Your task to perform on an android device: What's the weather going to be this weekend? Image 0: 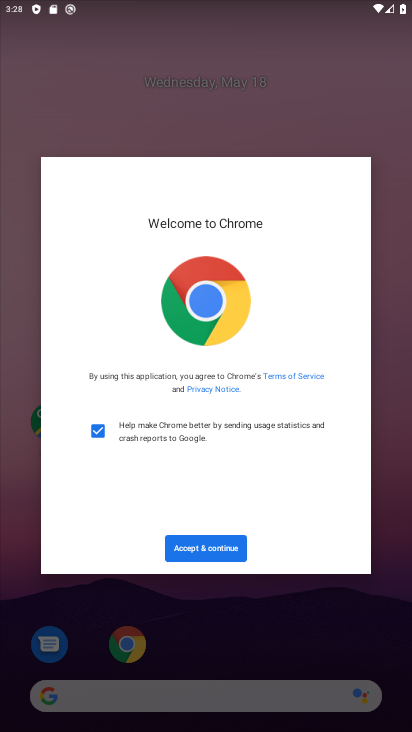
Step 0: click (192, 548)
Your task to perform on an android device: What's the weather going to be this weekend? Image 1: 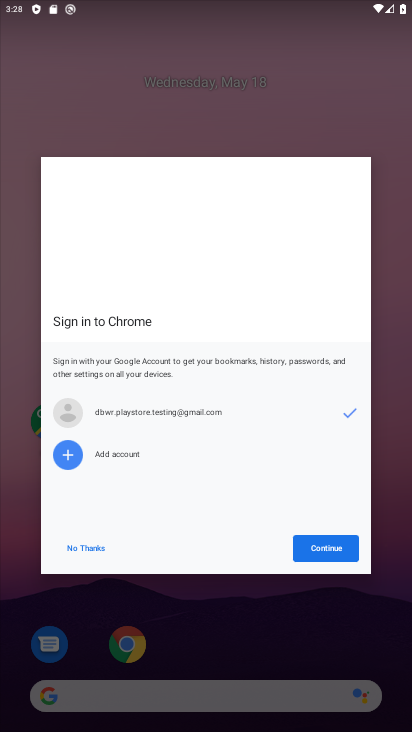
Step 1: press home button
Your task to perform on an android device: What's the weather going to be this weekend? Image 2: 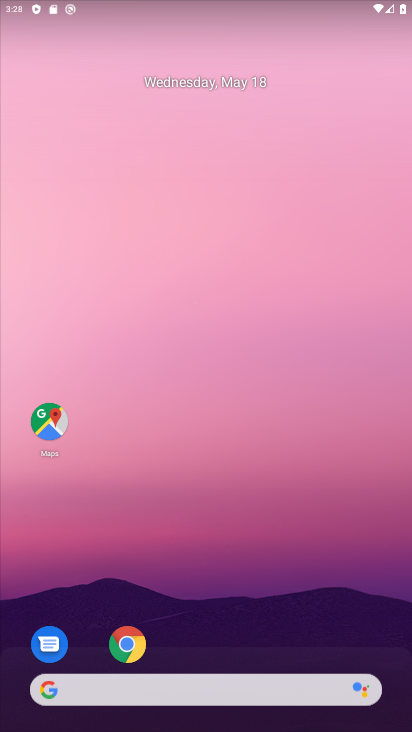
Step 2: drag from (10, 284) to (392, 209)
Your task to perform on an android device: What's the weather going to be this weekend? Image 3: 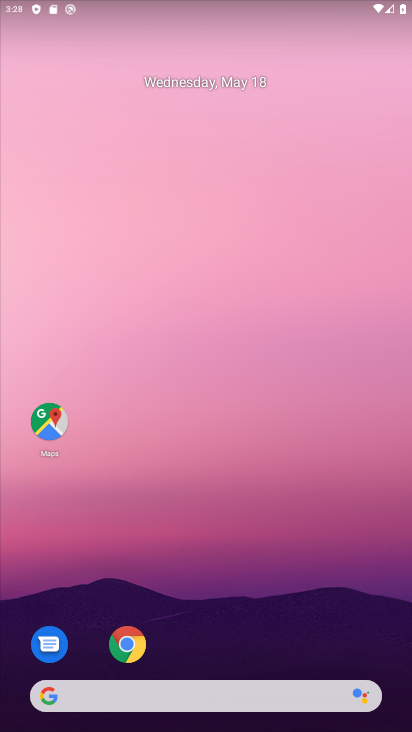
Step 3: drag from (184, 205) to (402, 216)
Your task to perform on an android device: What's the weather going to be this weekend? Image 4: 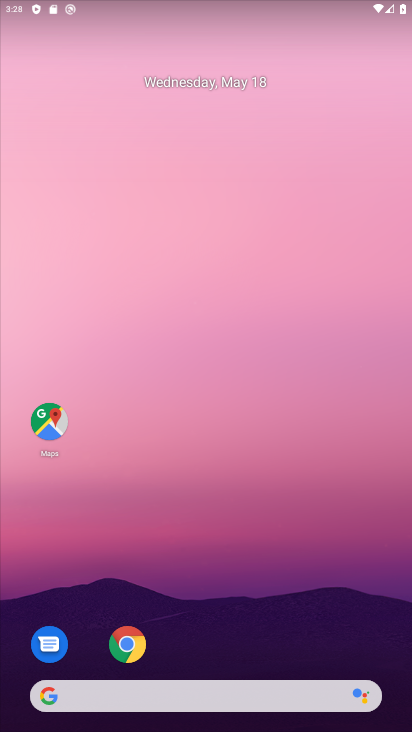
Step 4: drag from (182, 675) to (335, 42)
Your task to perform on an android device: What's the weather going to be this weekend? Image 5: 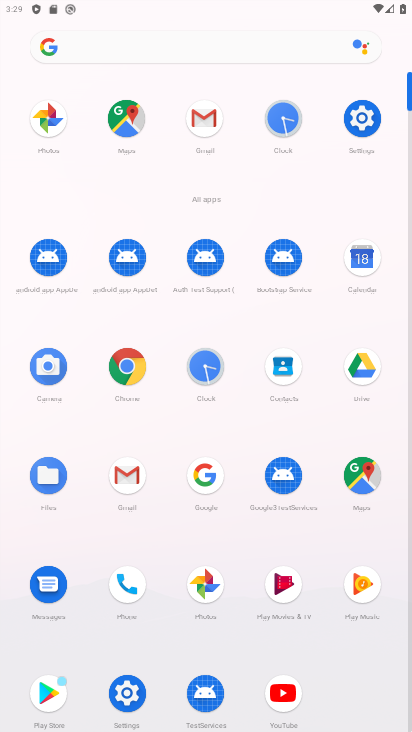
Step 5: click (169, 695)
Your task to perform on an android device: What's the weather going to be this weekend? Image 6: 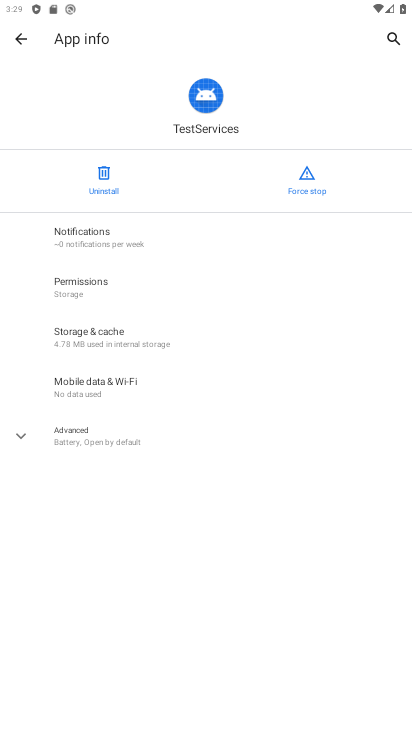
Step 6: press back button
Your task to perform on an android device: What's the weather going to be this weekend? Image 7: 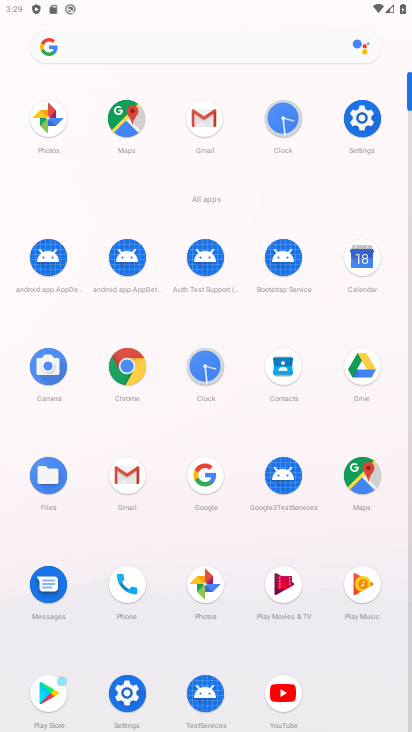
Step 7: click (213, 468)
Your task to perform on an android device: What's the weather going to be this weekend? Image 8: 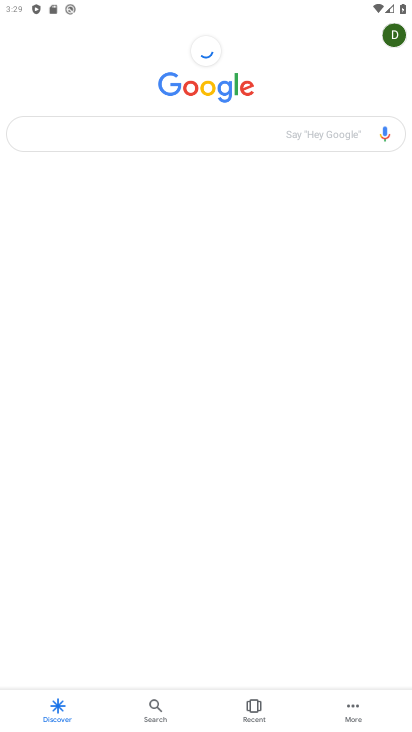
Step 8: click (185, 140)
Your task to perform on an android device: What's the weather going to be this weekend? Image 9: 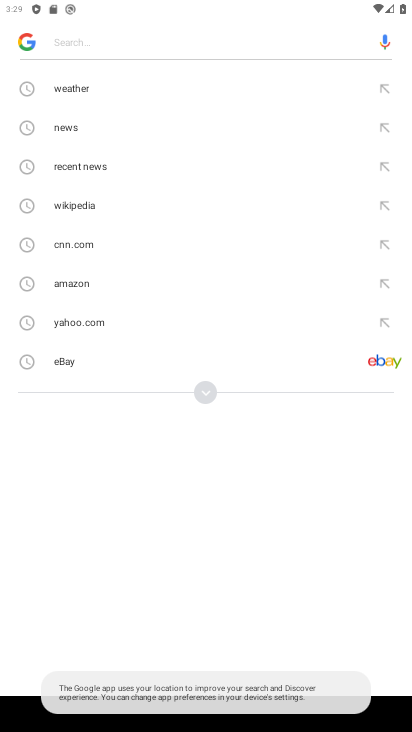
Step 9: click (123, 93)
Your task to perform on an android device: What's the weather going to be this weekend? Image 10: 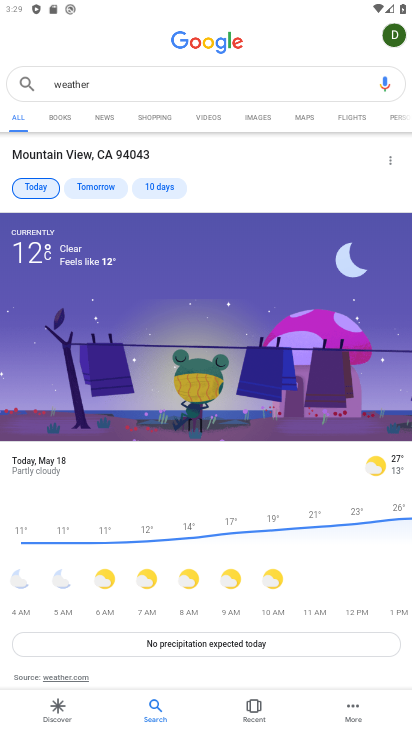
Step 10: drag from (198, 527) to (331, 168)
Your task to perform on an android device: What's the weather going to be this weekend? Image 11: 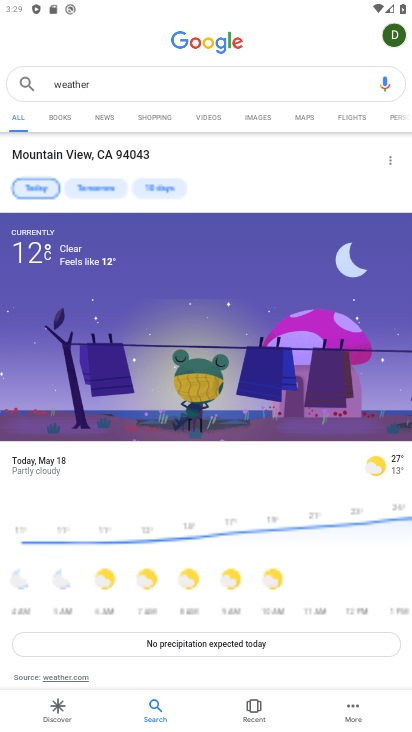
Step 11: drag from (176, 578) to (337, 92)
Your task to perform on an android device: What's the weather going to be this weekend? Image 12: 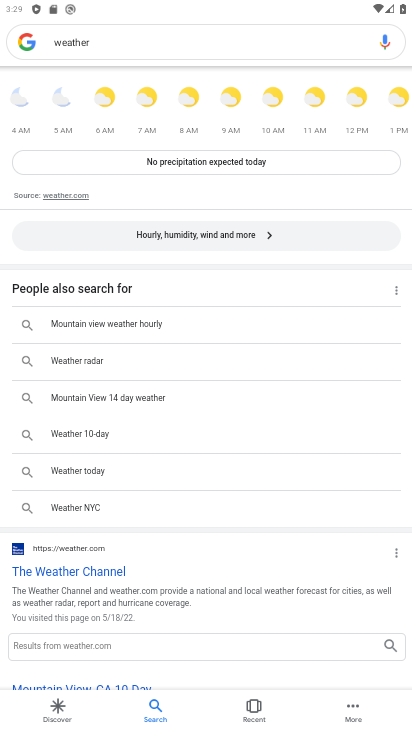
Step 12: drag from (197, 670) to (260, 360)
Your task to perform on an android device: What's the weather going to be this weekend? Image 13: 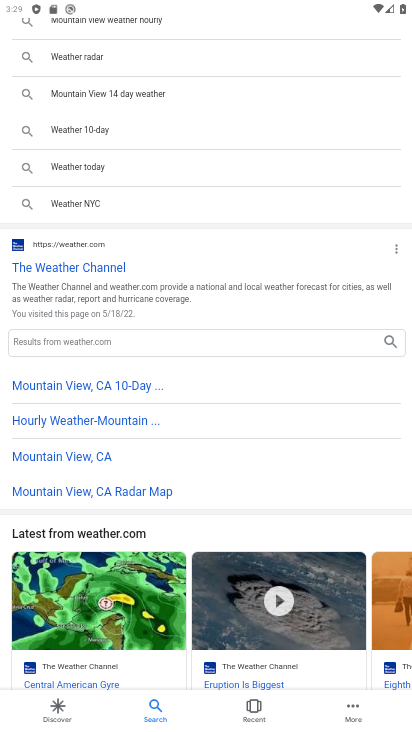
Step 13: click (99, 266)
Your task to perform on an android device: What's the weather going to be this weekend? Image 14: 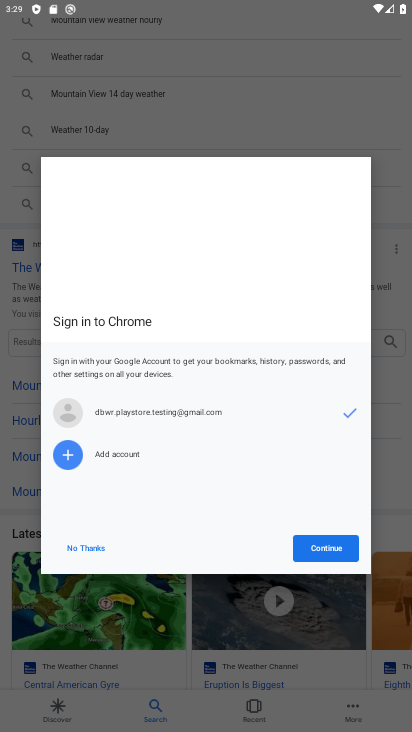
Step 14: click (326, 559)
Your task to perform on an android device: What's the weather going to be this weekend? Image 15: 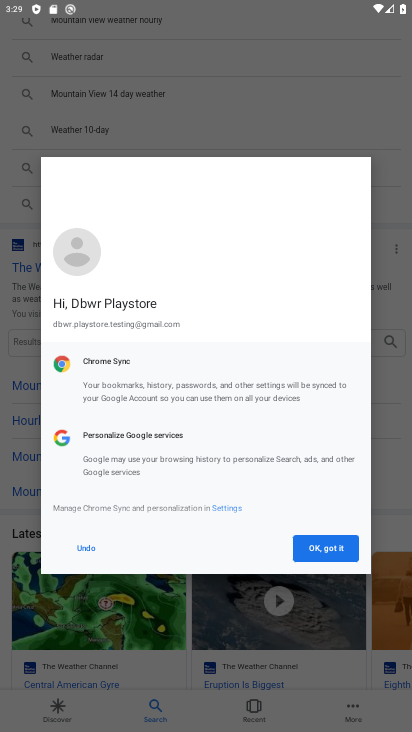
Step 15: click (326, 559)
Your task to perform on an android device: What's the weather going to be this weekend? Image 16: 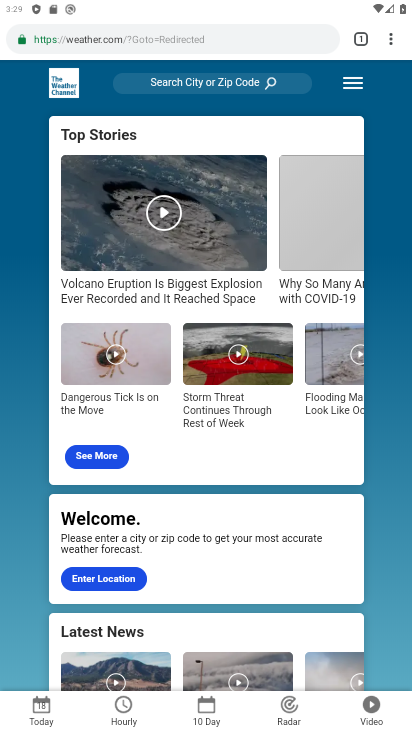
Step 16: click (211, 719)
Your task to perform on an android device: What's the weather going to be this weekend? Image 17: 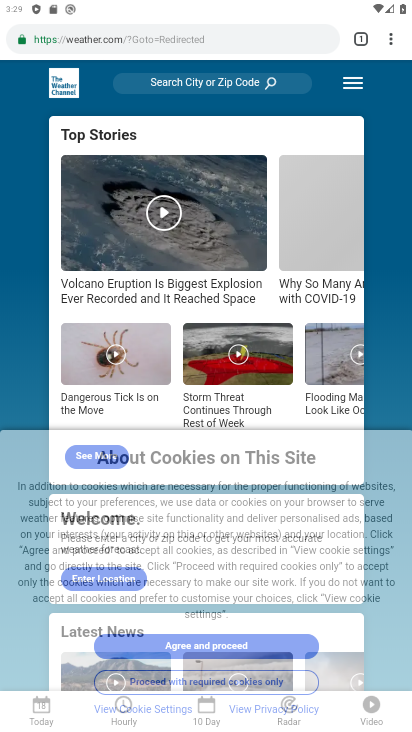
Step 17: click (211, 717)
Your task to perform on an android device: What's the weather going to be this weekend? Image 18: 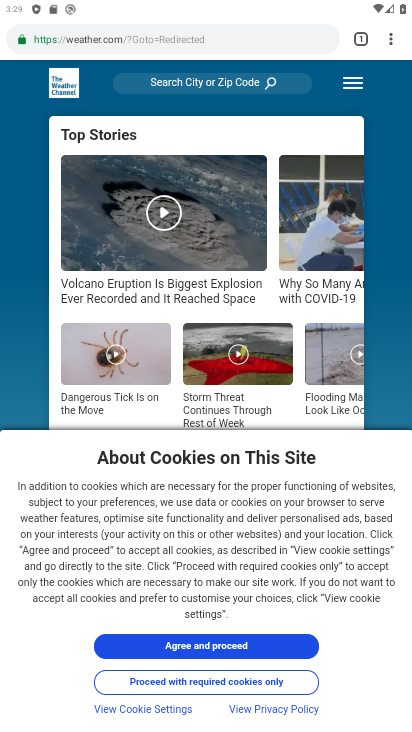
Step 18: click (222, 647)
Your task to perform on an android device: What's the weather going to be this weekend? Image 19: 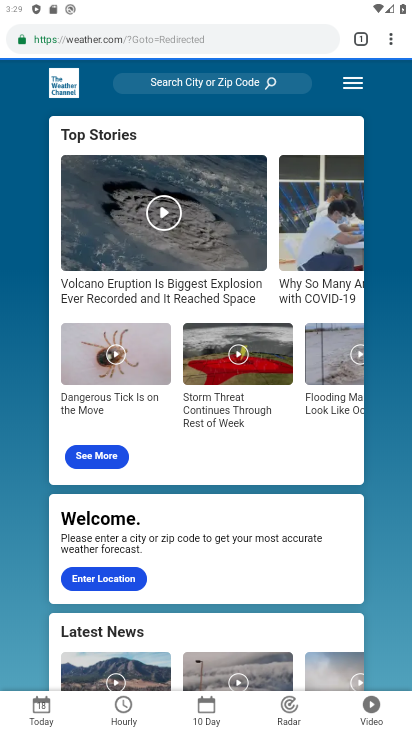
Step 19: click (197, 705)
Your task to perform on an android device: What's the weather going to be this weekend? Image 20: 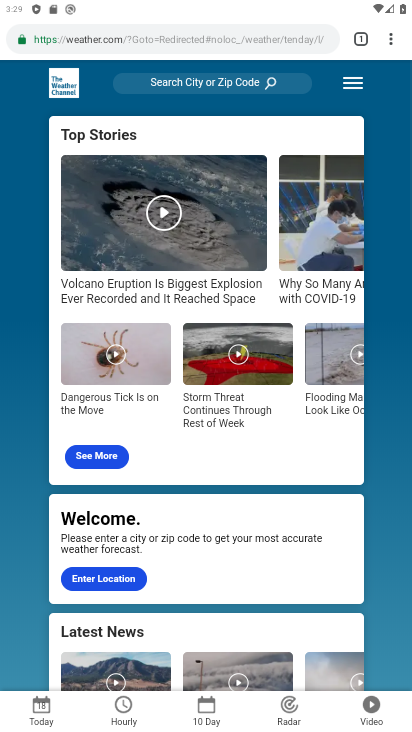
Step 20: click (211, 715)
Your task to perform on an android device: What's the weather going to be this weekend? Image 21: 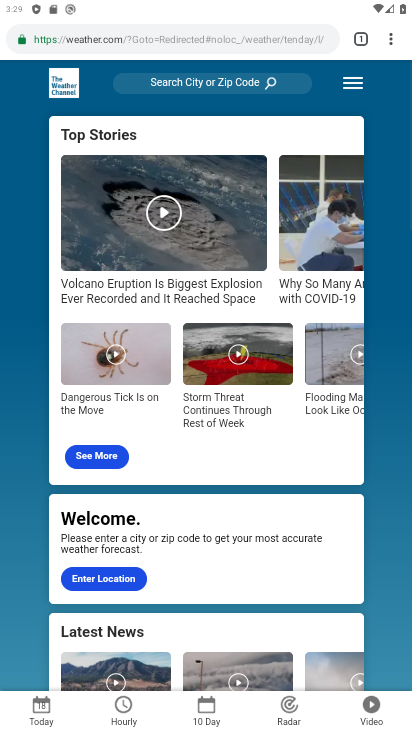
Step 21: click (211, 715)
Your task to perform on an android device: What's the weather going to be this weekend? Image 22: 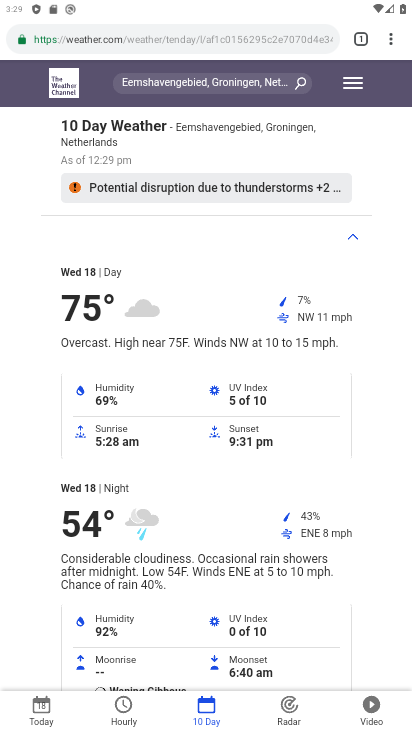
Step 22: task complete